Your task to perform on an android device: turn on airplane mode Image 0: 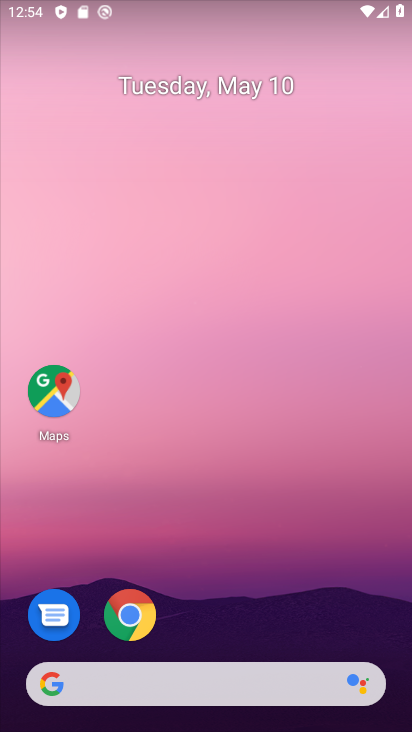
Step 0: drag from (240, 633) to (264, 10)
Your task to perform on an android device: turn on airplane mode Image 1: 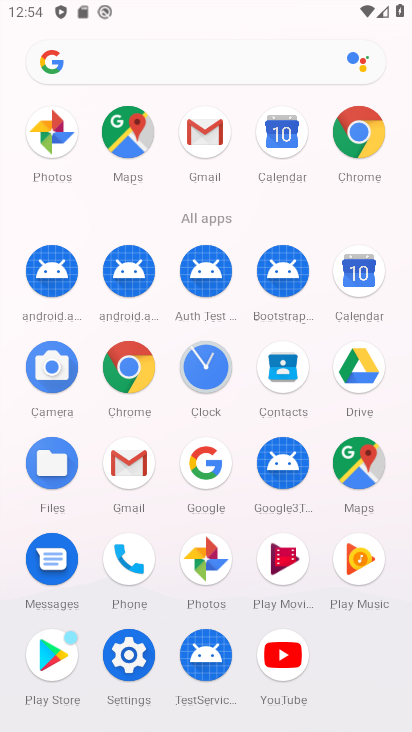
Step 1: click (126, 688)
Your task to perform on an android device: turn on airplane mode Image 2: 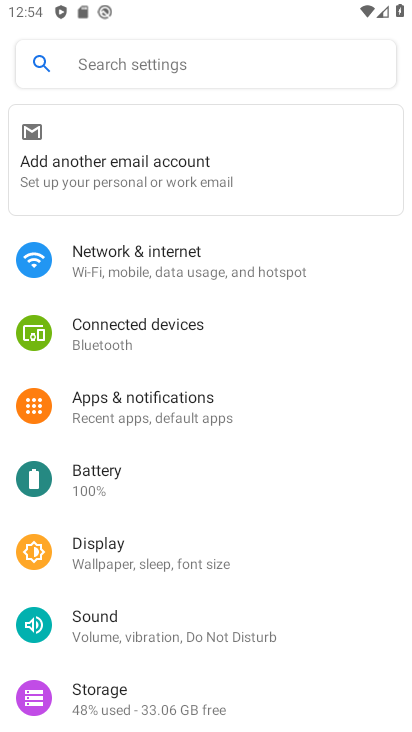
Step 2: click (155, 269)
Your task to perform on an android device: turn on airplane mode Image 3: 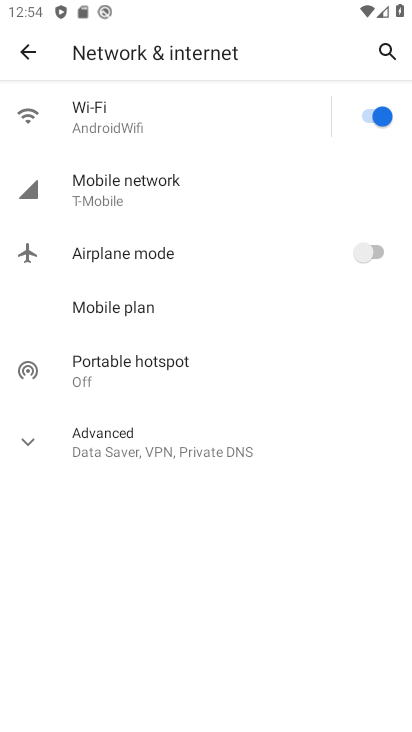
Step 3: click (279, 261)
Your task to perform on an android device: turn on airplane mode Image 4: 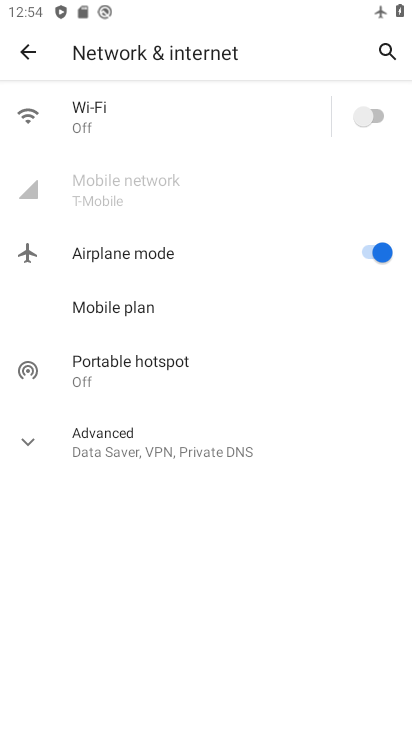
Step 4: task complete